Your task to perform on an android device: check data usage Image 0: 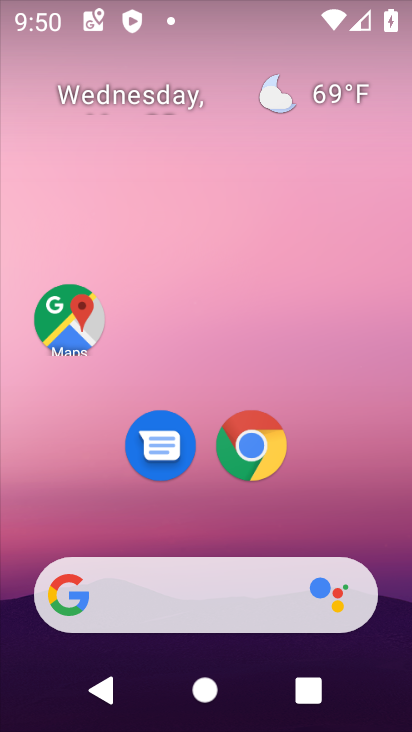
Step 0: drag from (386, 17) to (0, 318)
Your task to perform on an android device: check data usage Image 1: 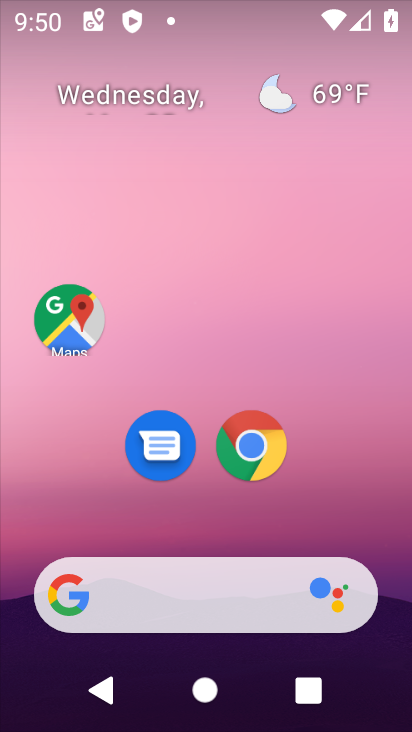
Step 1: drag from (216, 4) to (280, 646)
Your task to perform on an android device: check data usage Image 2: 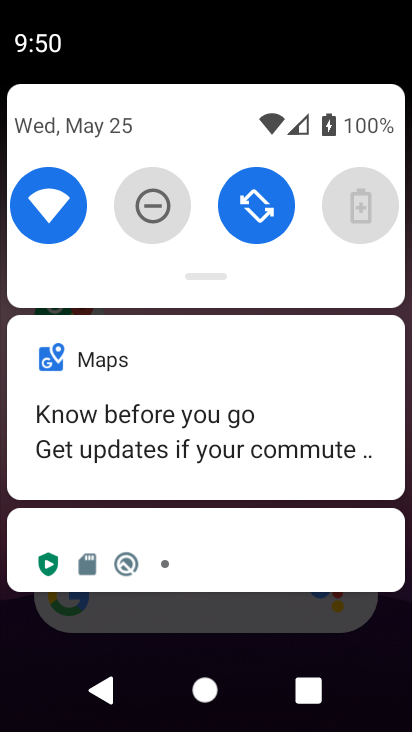
Step 2: drag from (207, 276) to (19, 343)
Your task to perform on an android device: check data usage Image 3: 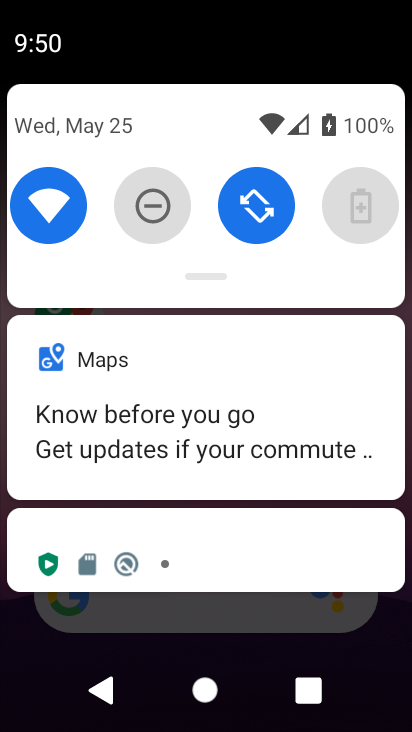
Step 3: drag from (218, 272) to (218, 653)
Your task to perform on an android device: check data usage Image 4: 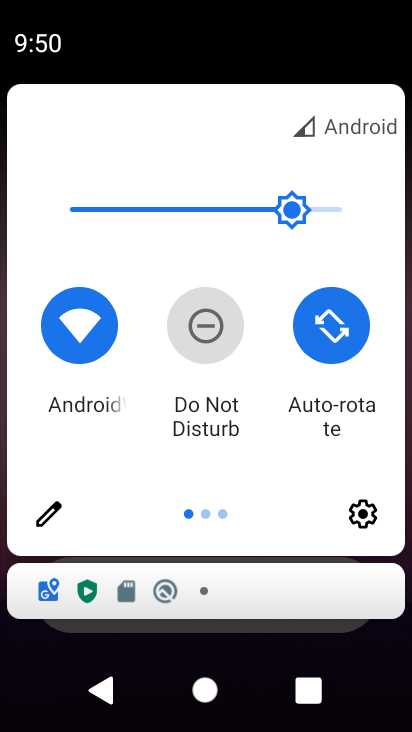
Step 4: drag from (393, 344) to (32, 408)
Your task to perform on an android device: check data usage Image 5: 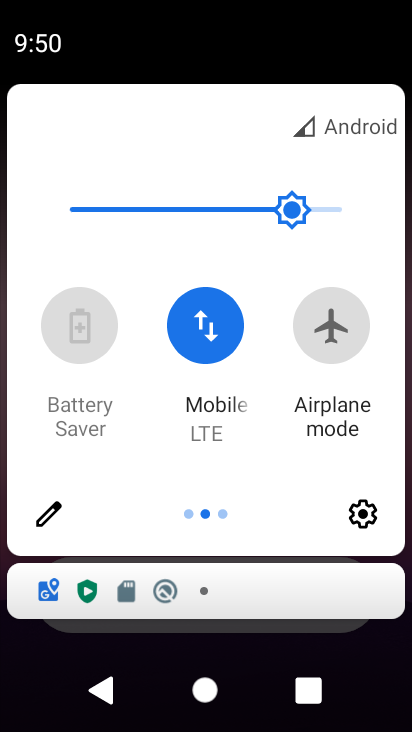
Step 5: click (184, 338)
Your task to perform on an android device: check data usage Image 6: 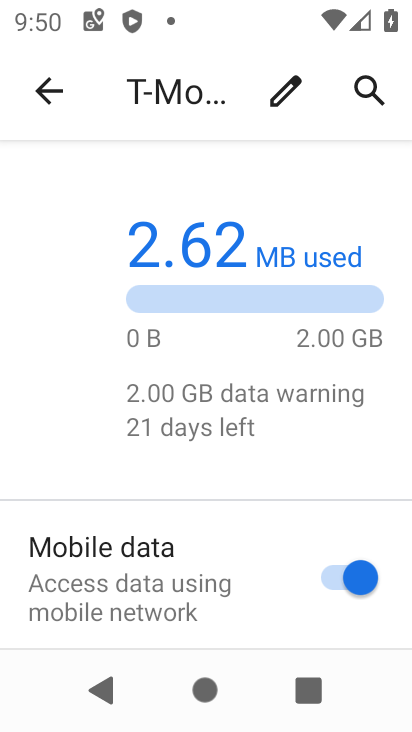
Step 6: task complete